Your task to perform on an android device: turn off smart reply in the gmail app Image 0: 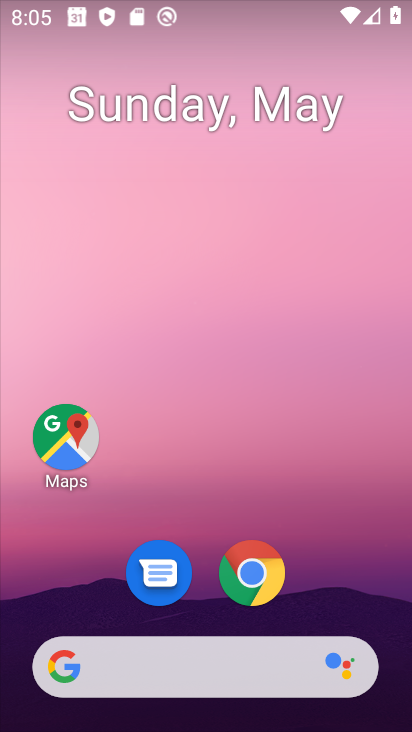
Step 0: drag from (378, 596) to (312, 213)
Your task to perform on an android device: turn off smart reply in the gmail app Image 1: 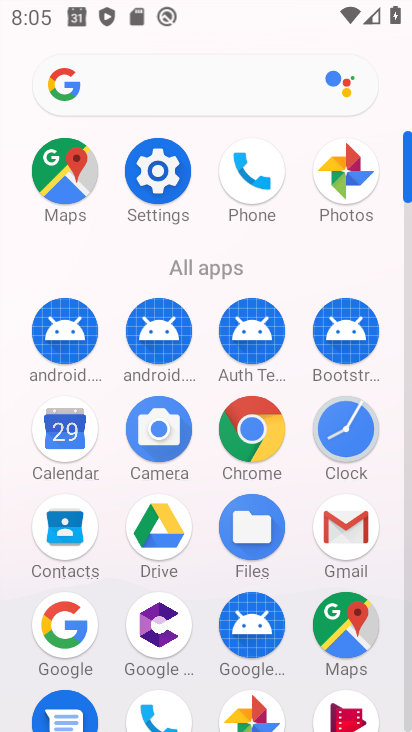
Step 1: click (327, 524)
Your task to perform on an android device: turn off smart reply in the gmail app Image 2: 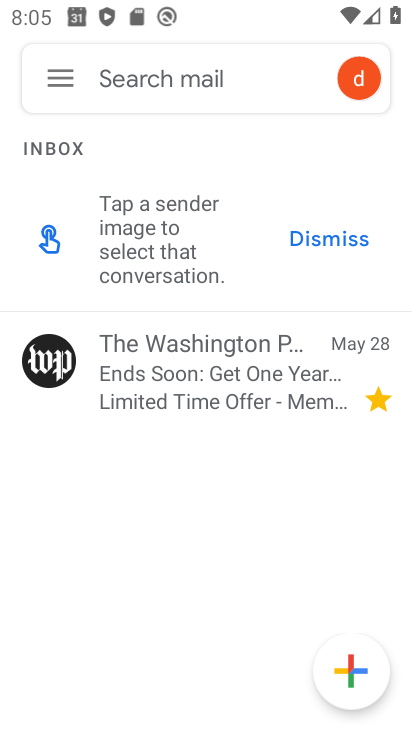
Step 2: click (70, 96)
Your task to perform on an android device: turn off smart reply in the gmail app Image 3: 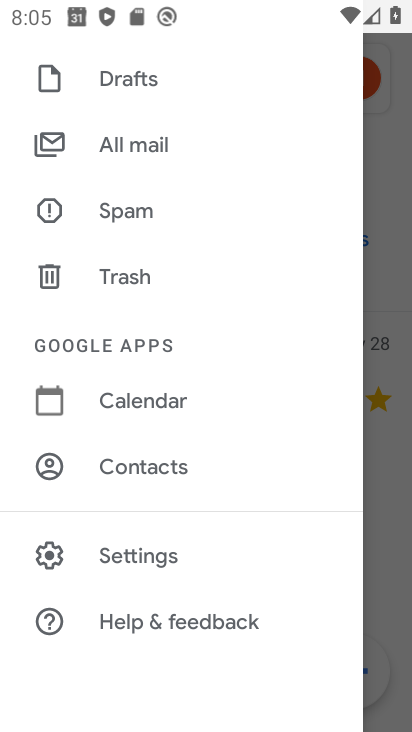
Step 3: click (167, 565)
Your task to perform on an android device: turn off smart reply in the gmail app Image 4: 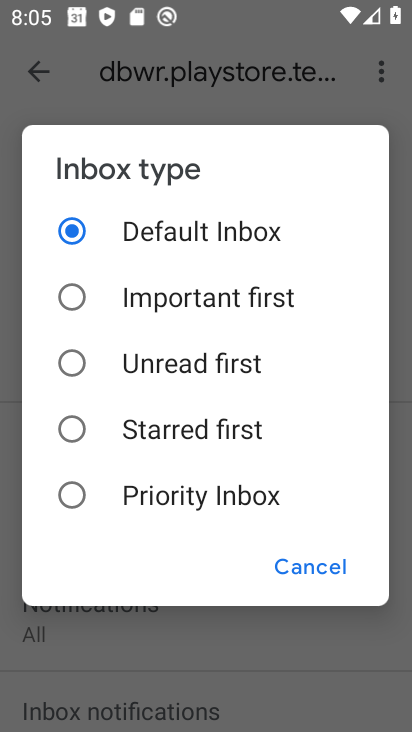
Step 4: click (322, 570)
Your task to perform on an android device: turn off smart reply in the gmail app Image 5: 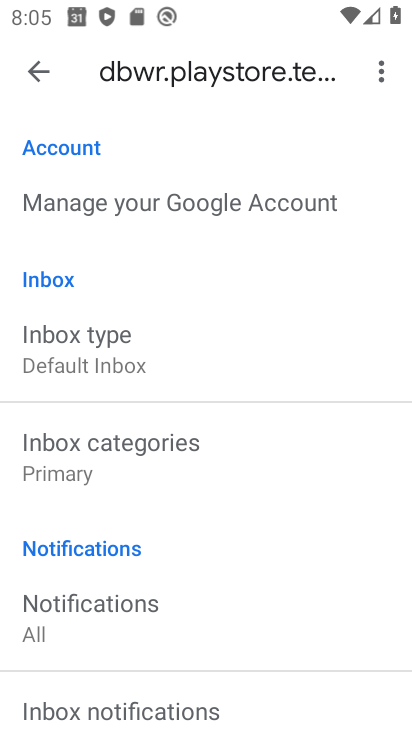
Step 5: drag from (308, 648) to (290, 325)
Your task to perform on an android device: turn off smart reply in the gmail app Image 6: 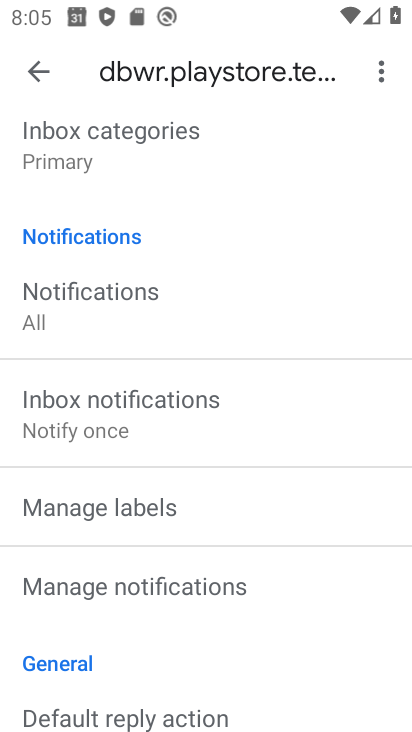
Step 6: drag from (299, 635) to (257, 325)
Your task to perform on an android device: turn off smart reply in the gmail app Image 7: 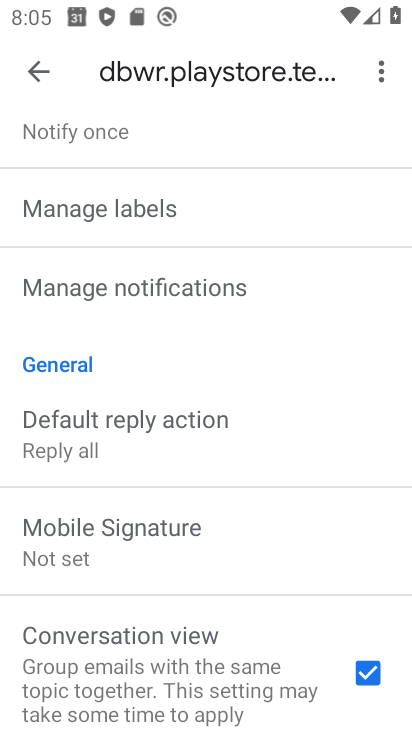
Step 7: drag from (217, 600) to (199, 268)
Your task to perform on an android device: turn off smart reply in the gmail app Image 8: 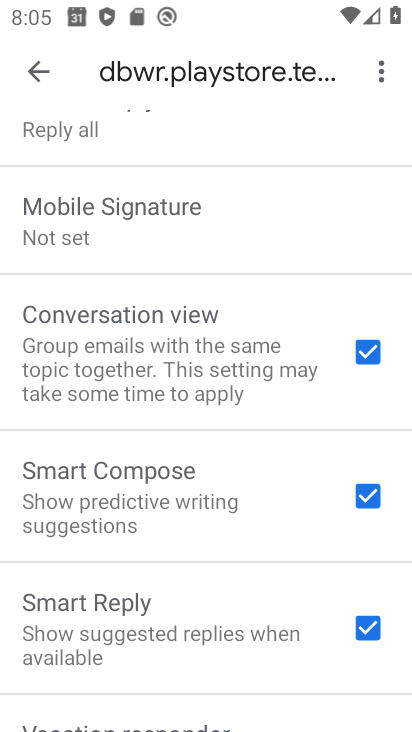
Step 8: drag from (279, 578) to (260, 369)
Your task to perform on an android device: turn off smart reply in the gmail app Image 9: 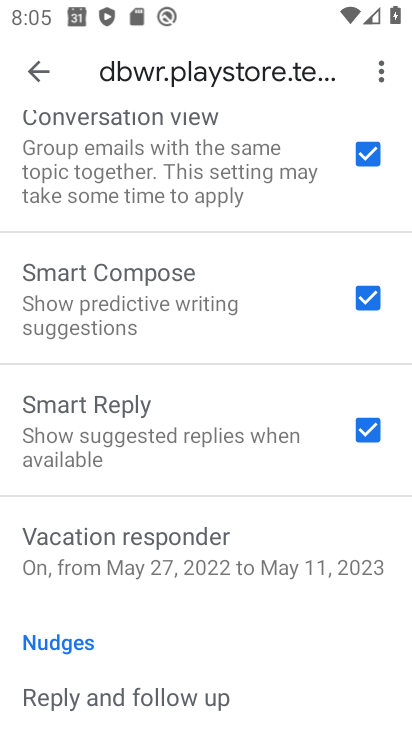
Step 9: click (354, 432)
Your task to perform on an android device: turn off smart reply in the gmail app Image 10: 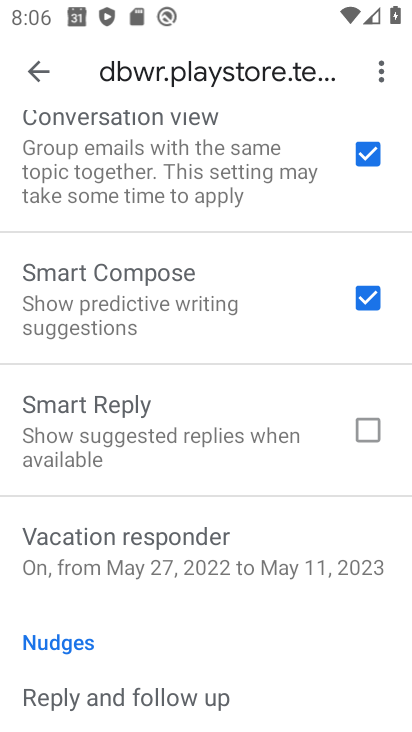
Step 10: task complete